Your task to perform on an android device: turn off smart reply in the gmail app Image 0: 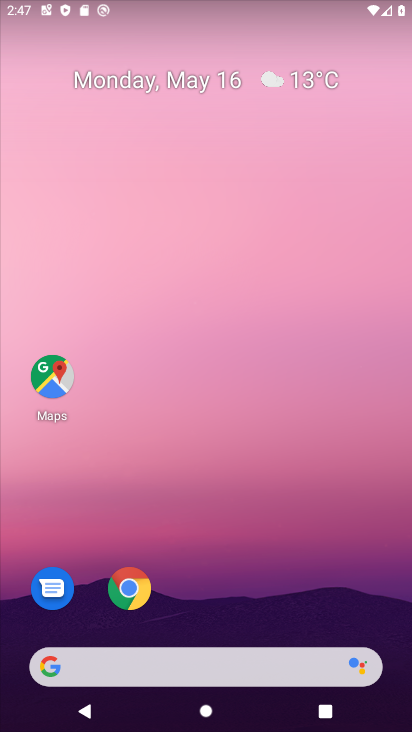
Step 0: drag from (268, 639) to (382, 25)
Your task to perform on an android device: turn off smart reply in the gmail app Image 1: 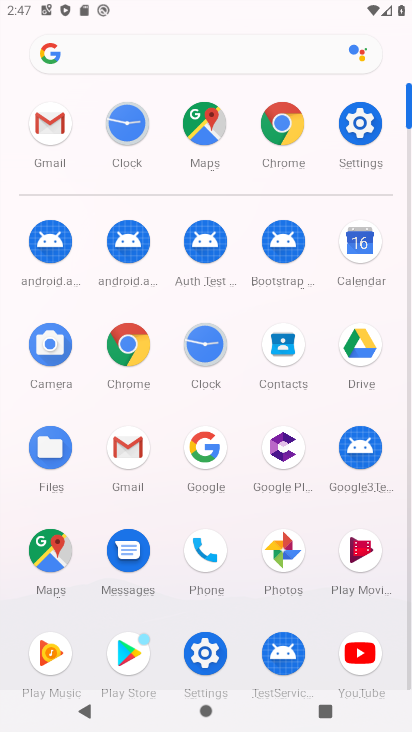
Step 1: click (122, 449)
Your task to perform on an android device: turn off smart reply in the gmail app Image 2: 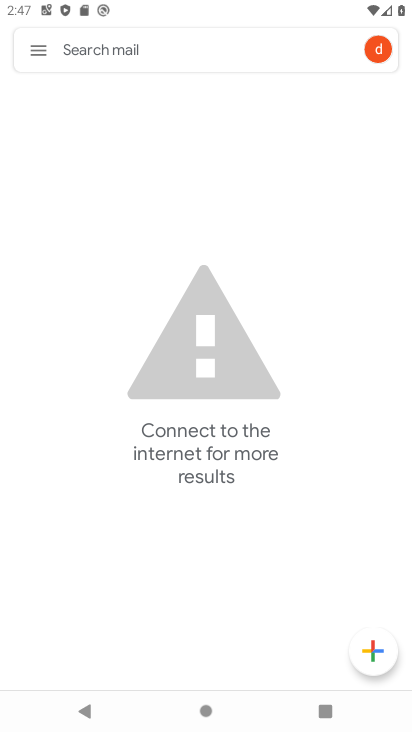
Step 2: click (45, 39)
Your task to perform on an android device: turn off smart reply in the gmail app Image 3: 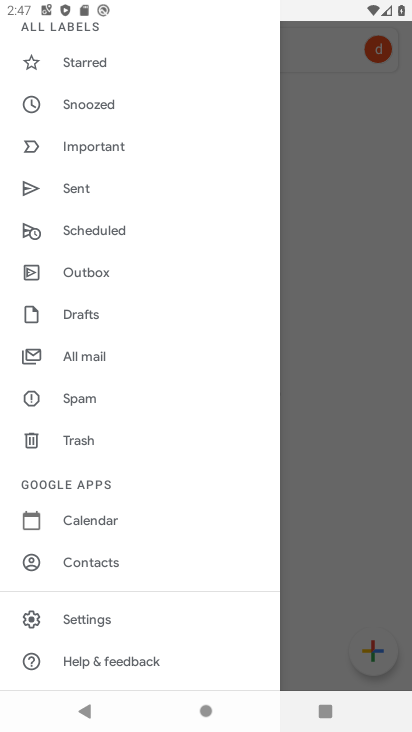
Step 3: click (96, 616)
Your task to perform on an android device: turn off smart reply in the gmail app Image 4: 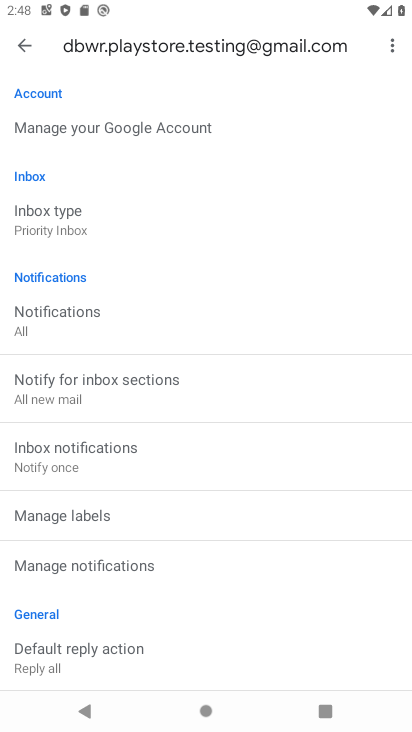
Step 4: drag from (141, 614) to (196, 19)
Your task to perform on an android device: turn off smart reply in the gmail app Image 5: 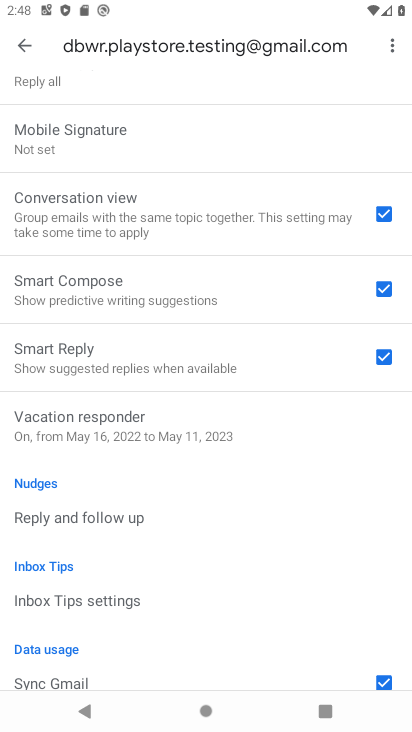
Step 5: click (382, 358)
Your task to perform on an android device: turn off smart reply in the gmail app Image 6: 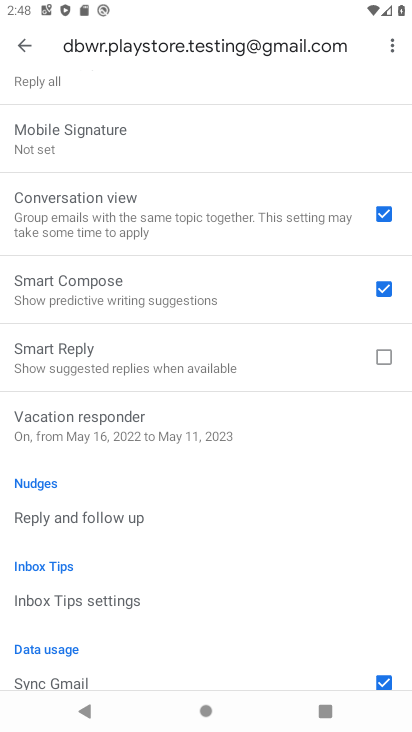
Step 6: task complete